Your task to perform on an android device: open the mobile data screen to see how much data has been used Image 0: 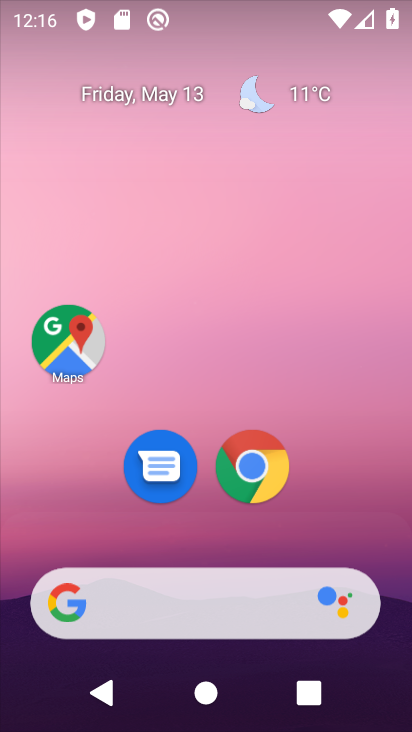
Step 0: drag from (320, 25) to (320, 356)
Your task to perform on an android device: open the mobile data screen to see how much data has been used Image 1: 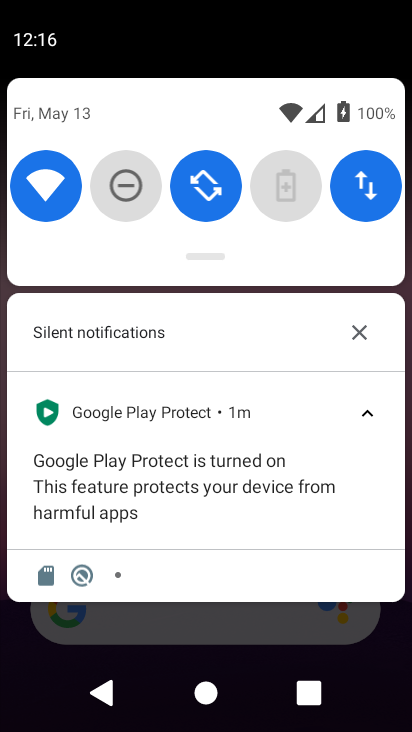
Step 1: click (371, 190)
Your task to perform on an android device: open the mobile data screen to see how much data has been used Image 2: 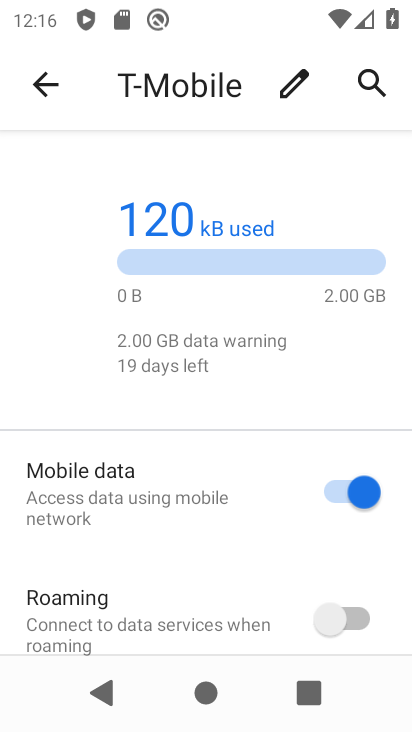
Step 2: click (288, 398)
Your task to perform on an android device: open the mobile data screen to see how much data has been used Image 3: 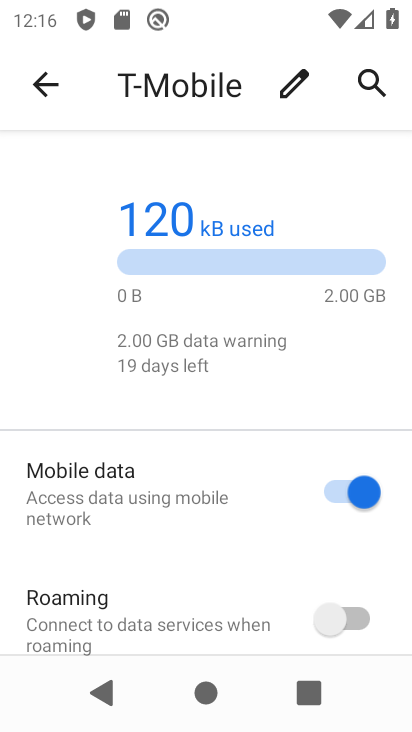
Step 3: task complete